Your task to perform on an android device: Open Android settings Image 0: 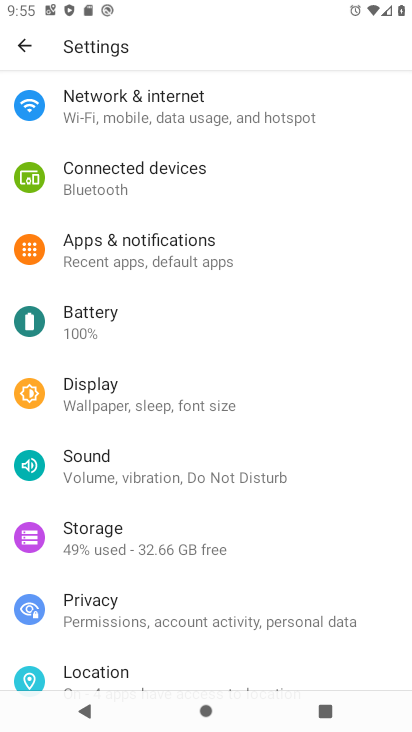
Step 0: task complete